Your task to perform on an android device: toggle location history Image 0: 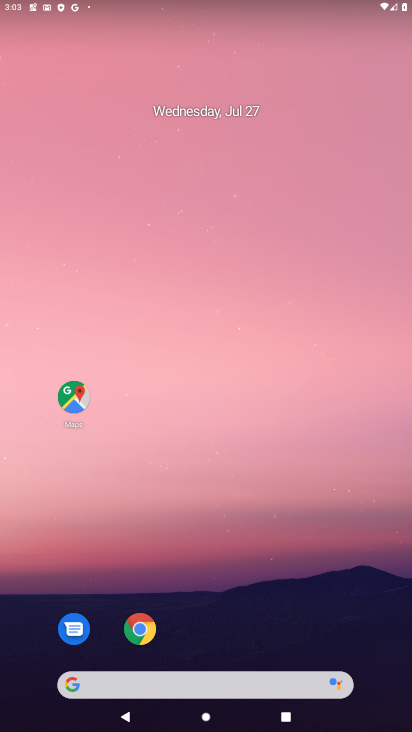
Step 0: drag from (206, 598) to (209, 392)
Your task to perform on an android device: toggle location history Image 1: 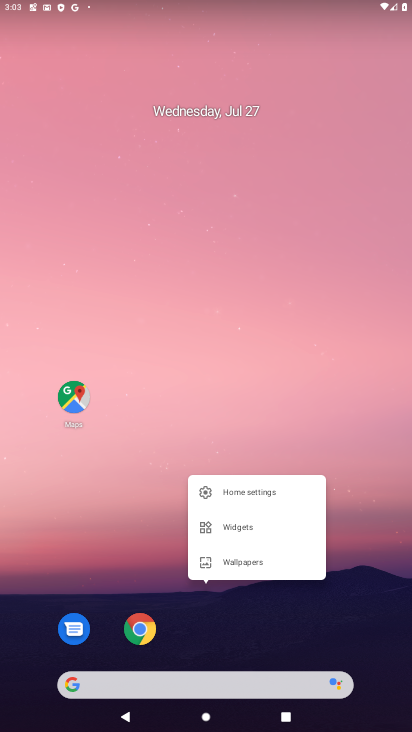
Step 1: click (209, 392)
Your task to perform on an android device: toggle location history Image 2: 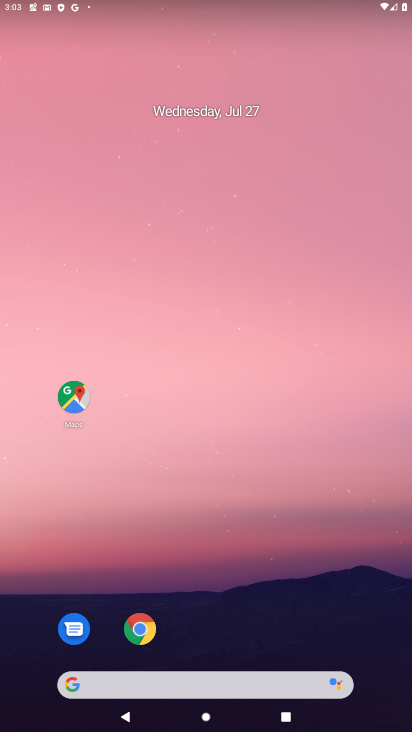
Step 2: drag from (260, 646) to (271, 69)
Your task to perform on an android device: toggle location history Image 3: 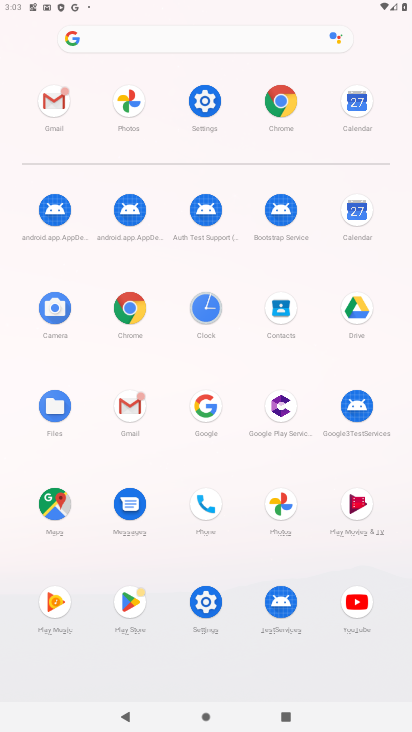
Step 3: click (193, 96)
Your task to perform on an android device: toggle location history Image 4: 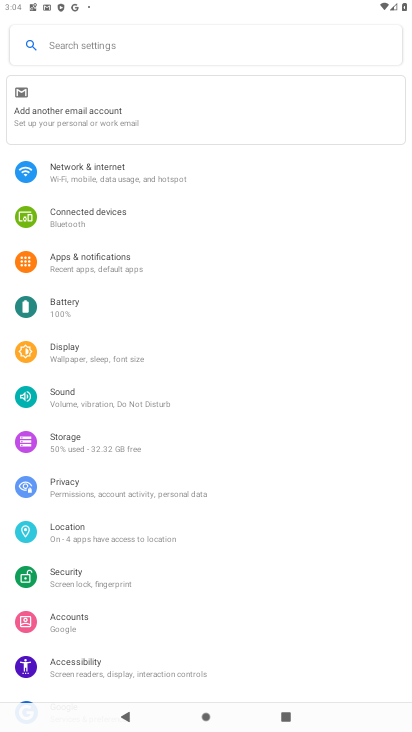
Step 4: click (148, 540)
Your task to perform on an android device: toggle location history Image 5: 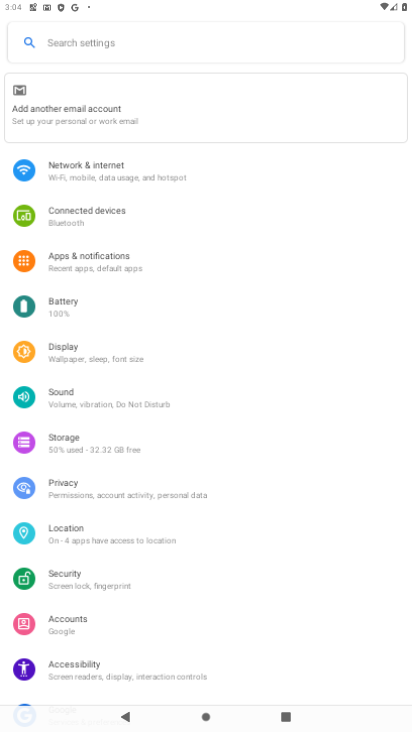
Step 5: task complete